Your task to perform on an android device: turn on improve location accuracy Image 0: 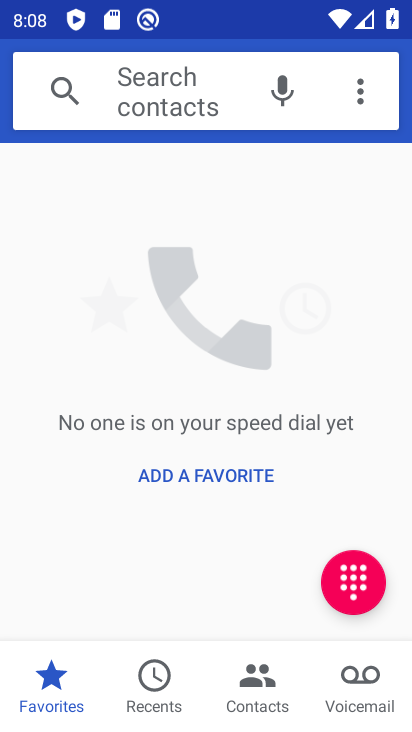
Step 0: press home button
Your task to perform on an android device: turn on improve location accuracy Image 1: 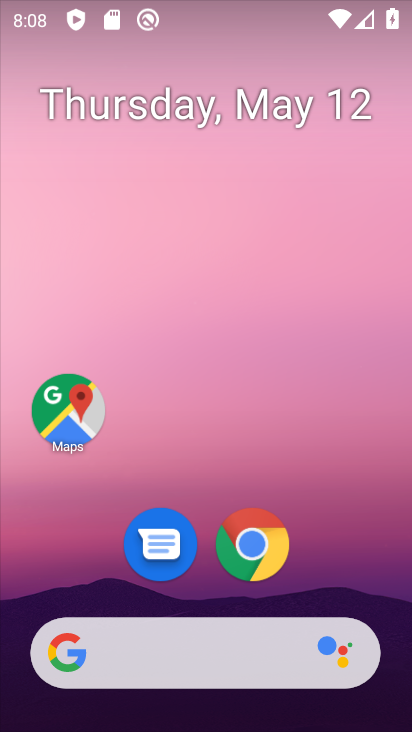
Step 1: drag from (225, 598) to (258, 12)
Your task to perform on an android device: turn on improve location accuracy Image 2: 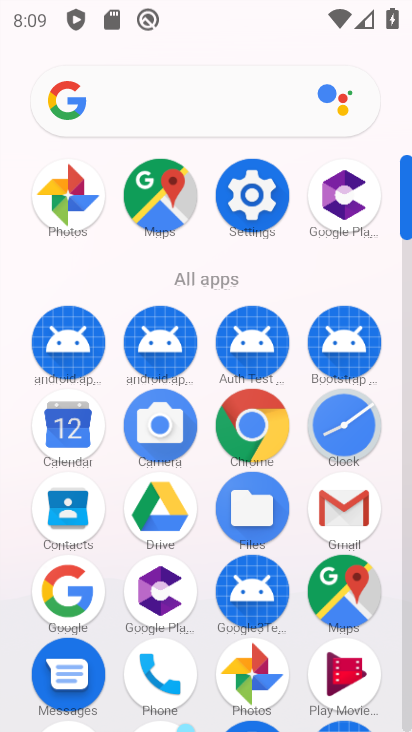
Step 2: click (254, 202)
Your task to perform on an android device: turn on improve location accuracy Image 3: 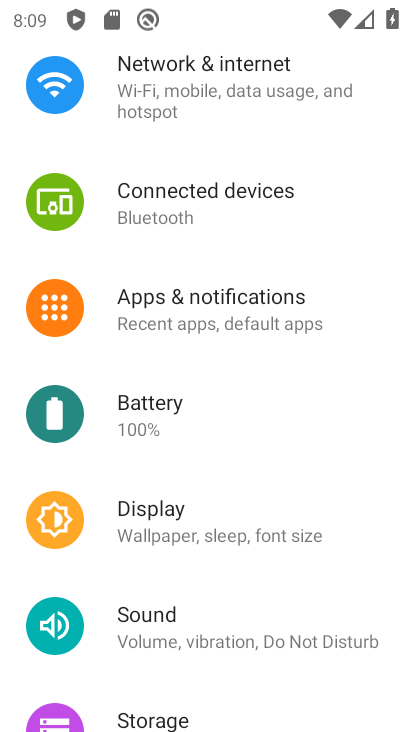
Step 3: drag from (233, 576) to (205, 28)
Your task to perform on an android device: turn on improve location accuracy Image 4: 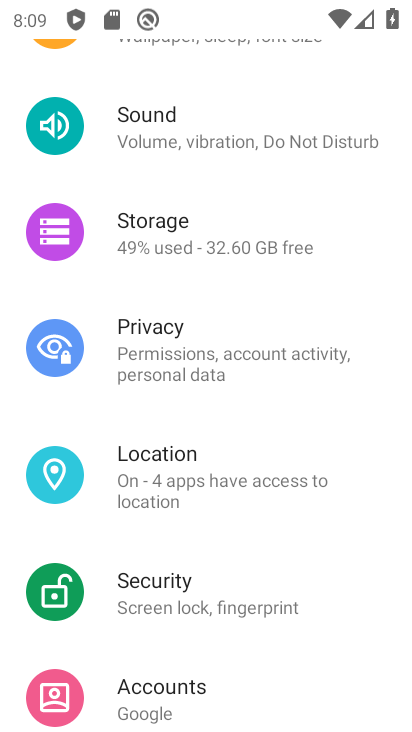
Step 4: click (163, 467)
Your task to perform on an android device: turn on improve location accuracy Image 5: 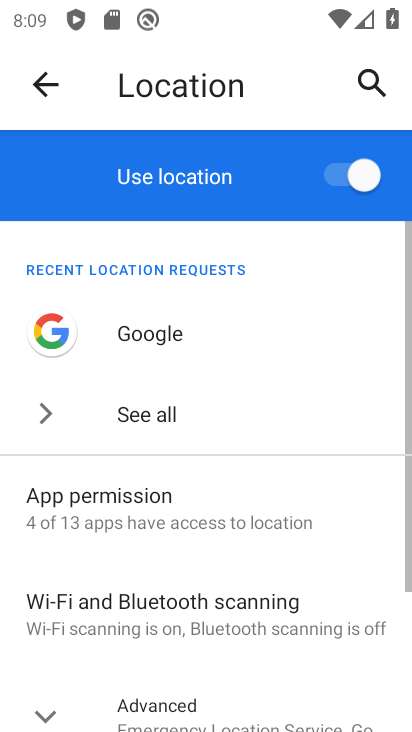
Step 5: drag from (205, 592) to (204, 177)
Your task to perform on an android device: turn on improve location accuracy Image 6: 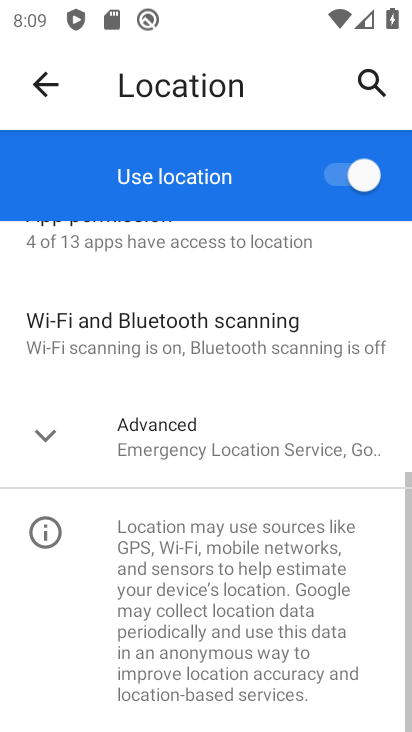
Step 6: click (167, 493)
Your task to perform on an android device: turn on improve location accuracy Image 7: 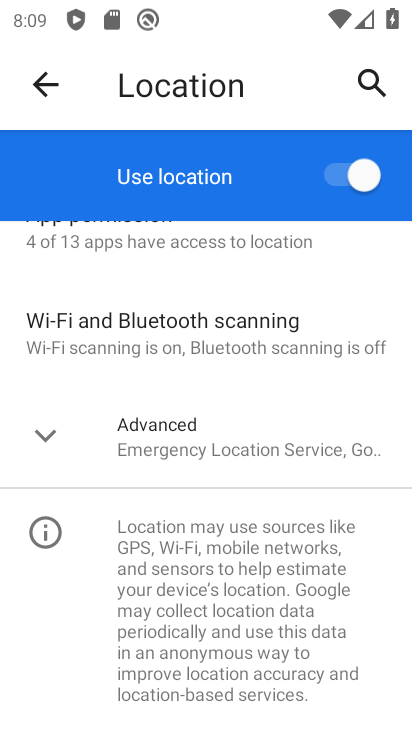
Step 7: click (179, 460)
Your task to perform on an android device: turn on improve location accuracy Image 8: 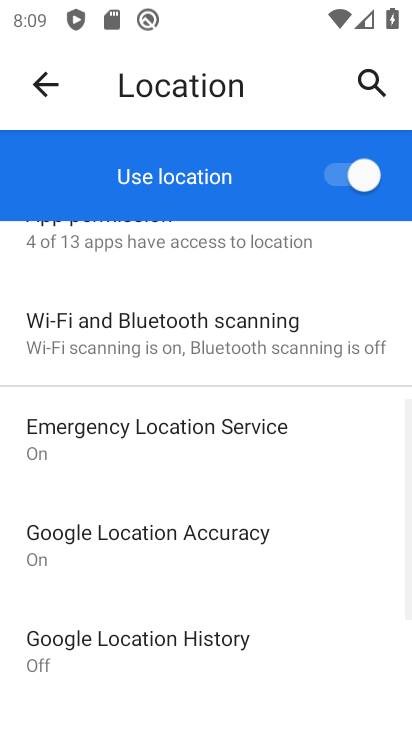
Step 8: click (171, 520)
Your task to perform on an android device: turn on improve location accuracy Image 9: 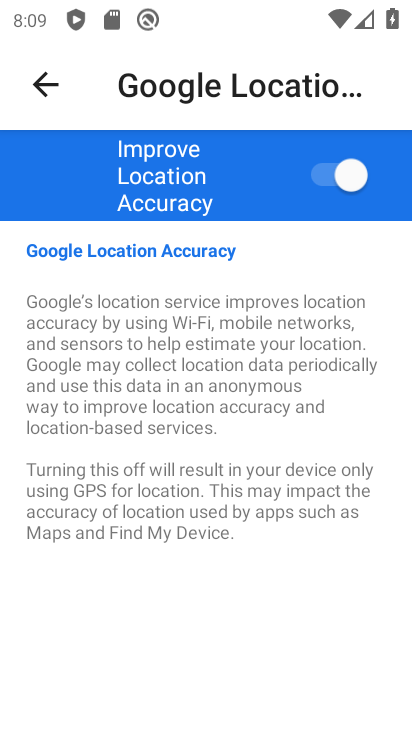
Step 9: task complete